Your task to perform on an android device: find photos in the google photos app Image 0: 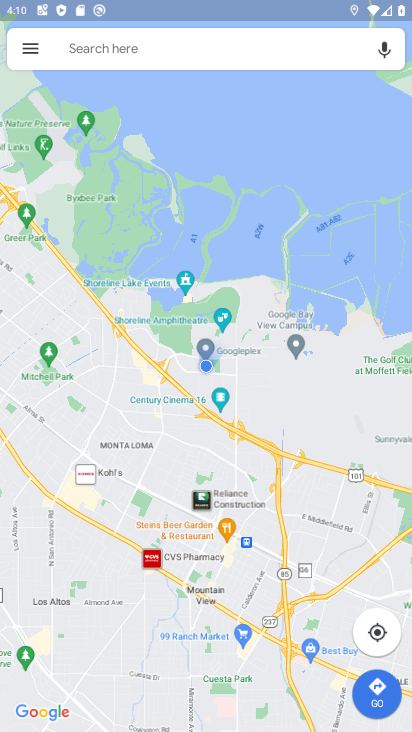
Step 0: press home button
Your task to perform on an android device: find photos in the google photos app Image 1: 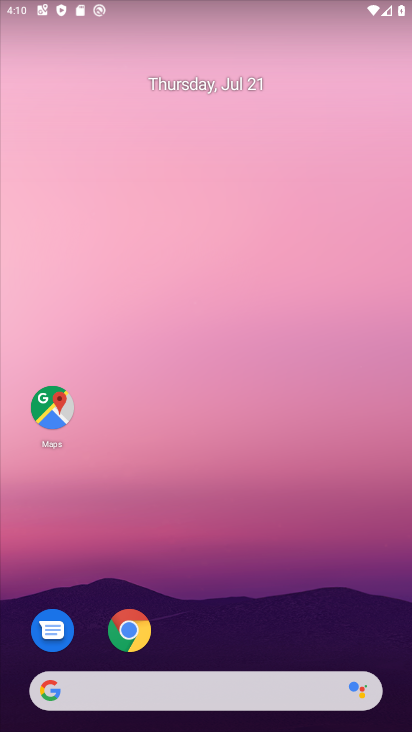
Step 1: drag from (30, 682) to (377, 64)
Your task to perform on an android device: find photos in the google photos app Image 2: 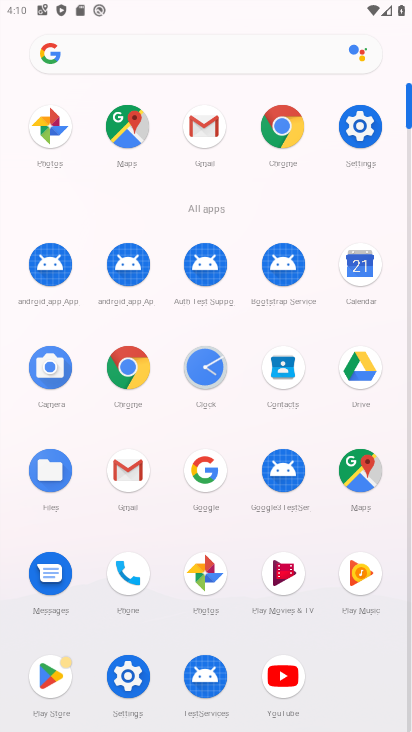
Step 2: click (180, 579)
Your task to perform on an android device: find photos in the google photos app Image 3: 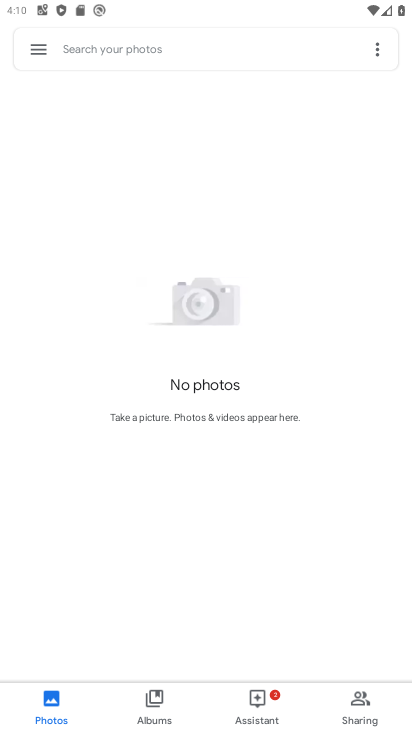
Step 3: task complete